Your task to perform on an android device: Open ESPN.com Image 0: 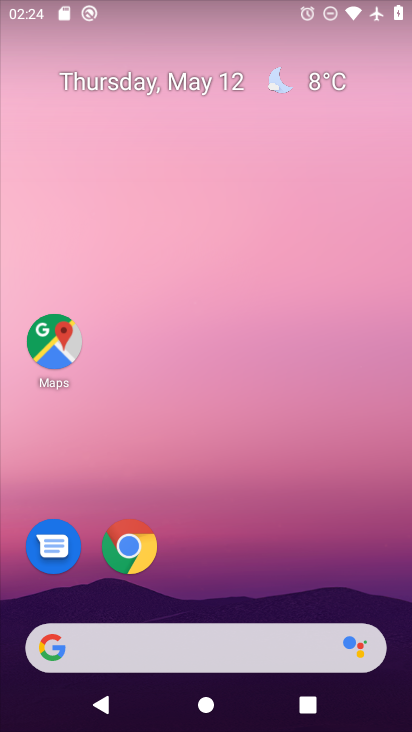
Step 0: click (126, 563)
Your task to perform on an android device: Open ESPN.com Image 1: 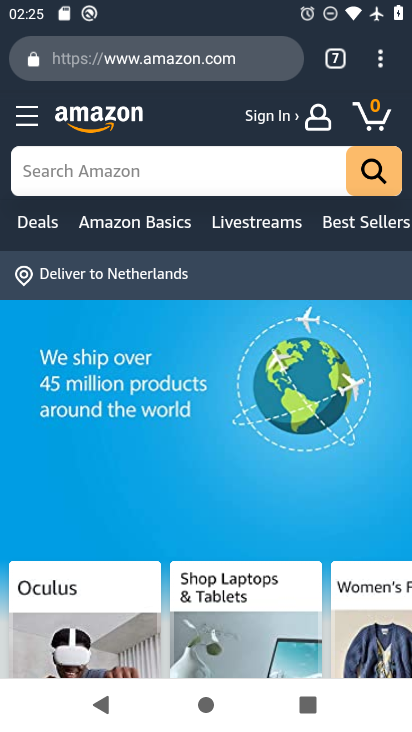
Step 1: drag from (381, 65) to (294, 120)
Your task to perform on an android device: Open ESPN.com Image 2: 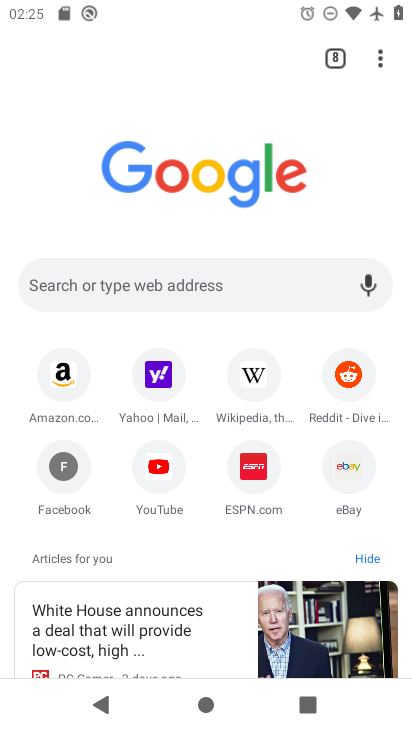
Step 2: click (252, 480)
Your task to perform on an android device: Open ESPN.com Image 3: 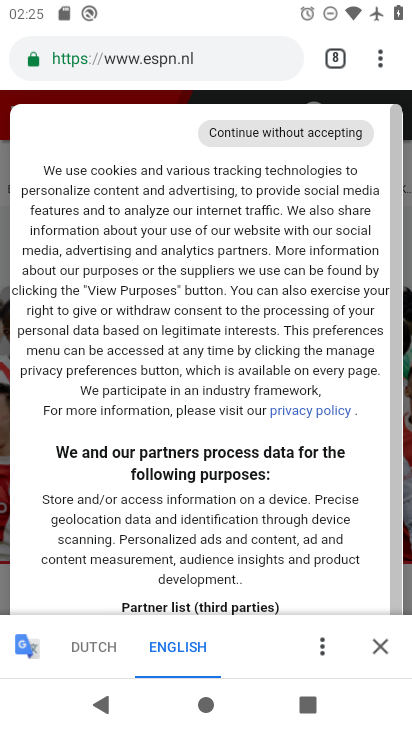
Step 3: task complete